Your task to perform on an android device: turn pop-ups on in chrome Image 0: 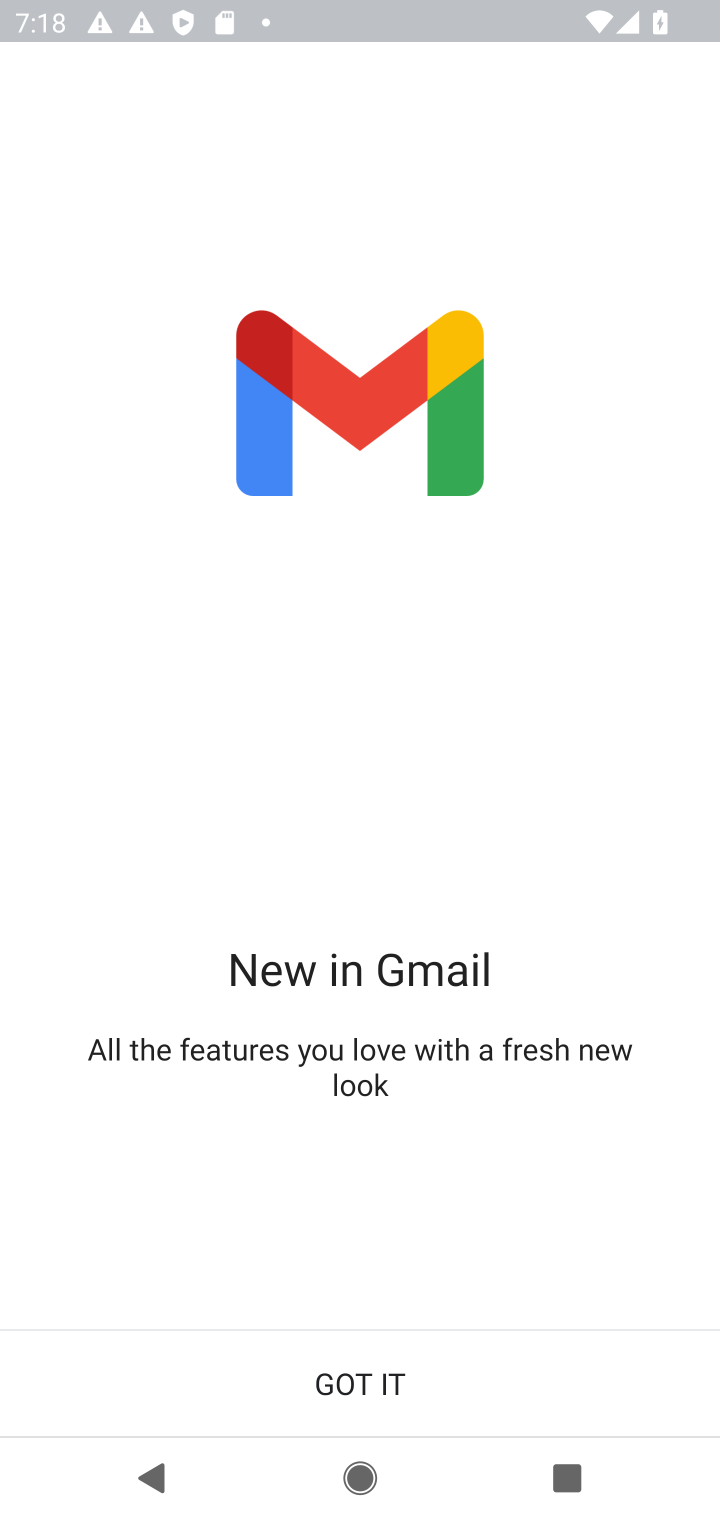
Step 0: press home button
Your task to perform on an android device: turn pop-ups on in chrome Image 1: 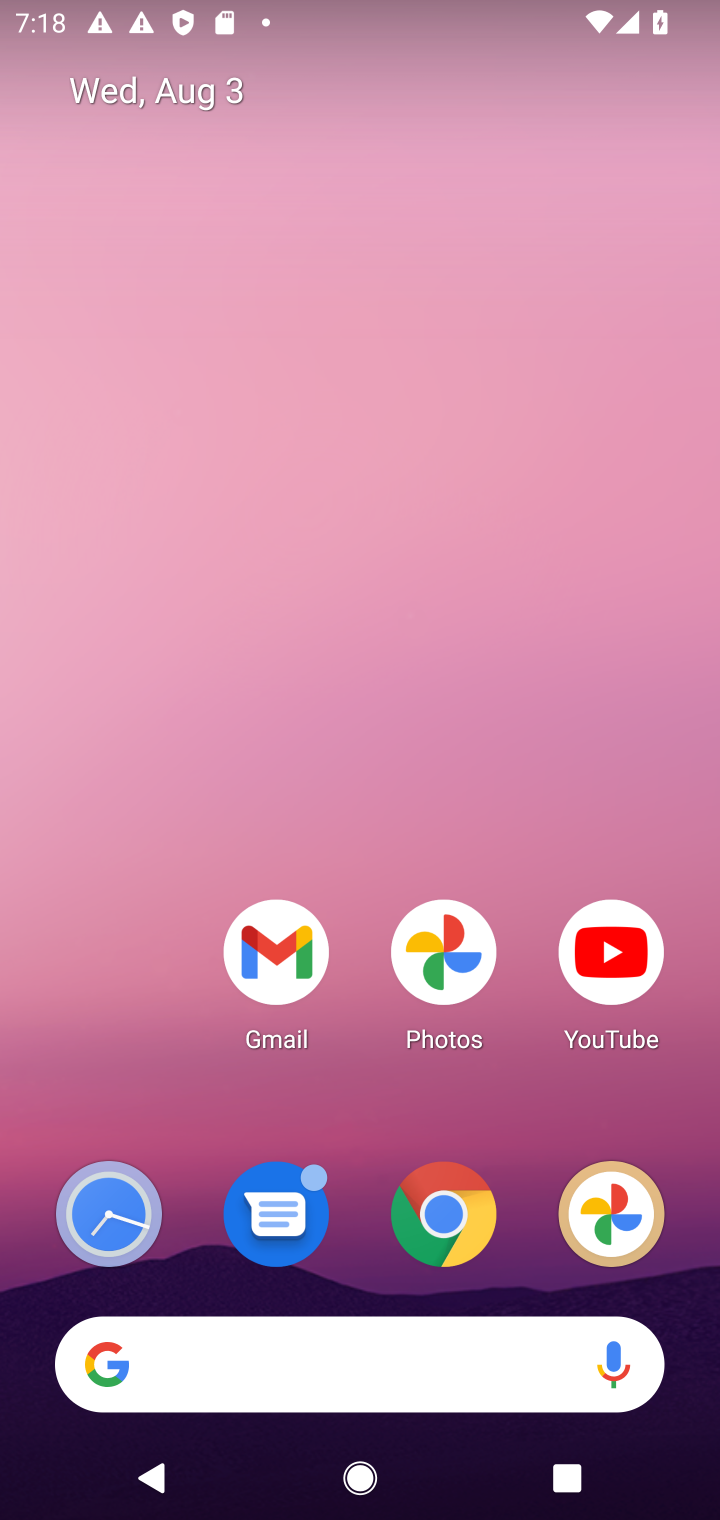
Step 1: click (436, 1203)
Your task to perform on an android device: turn pop-ups on in chrome Image 2: 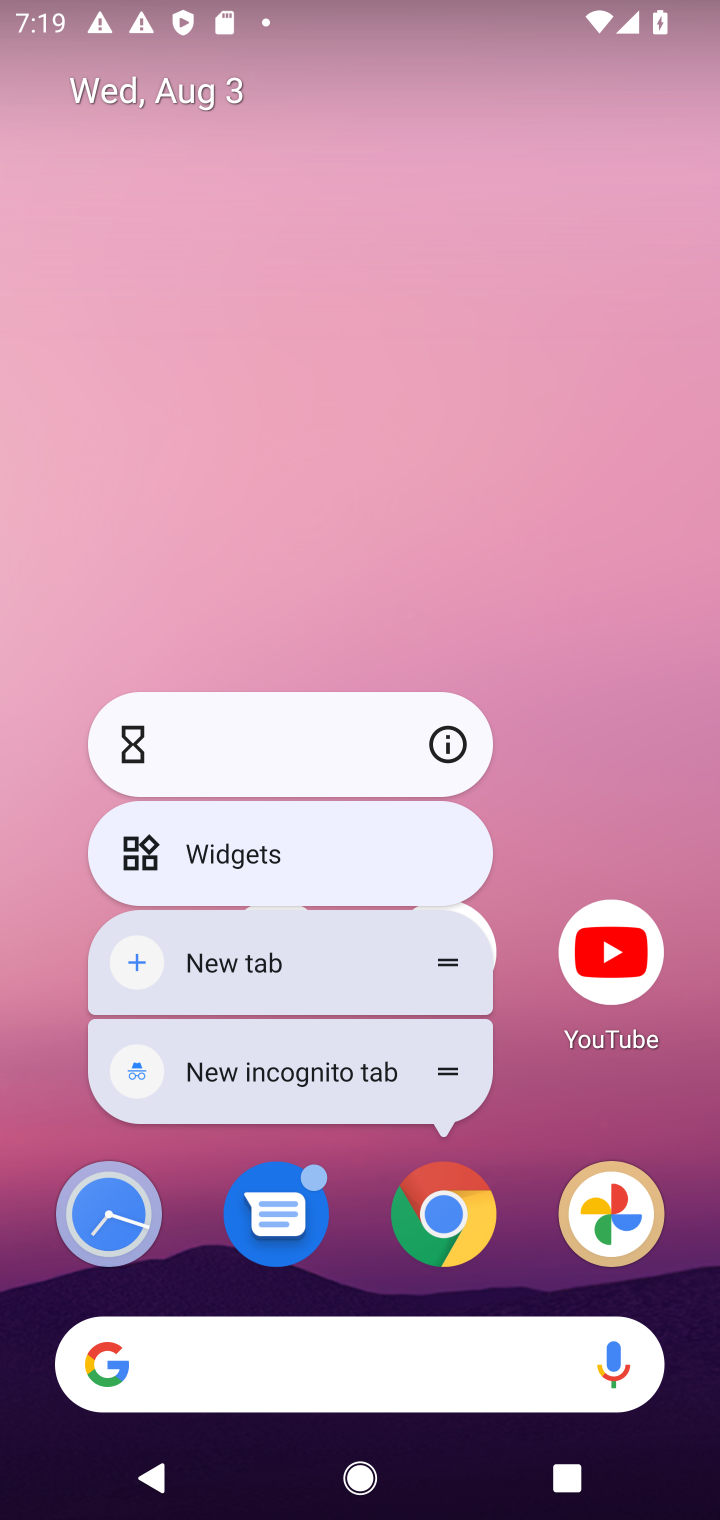
Step 2: click (436, 1203)
Your task to perform on an android device: turn pop-ups on in chrome Image 3: 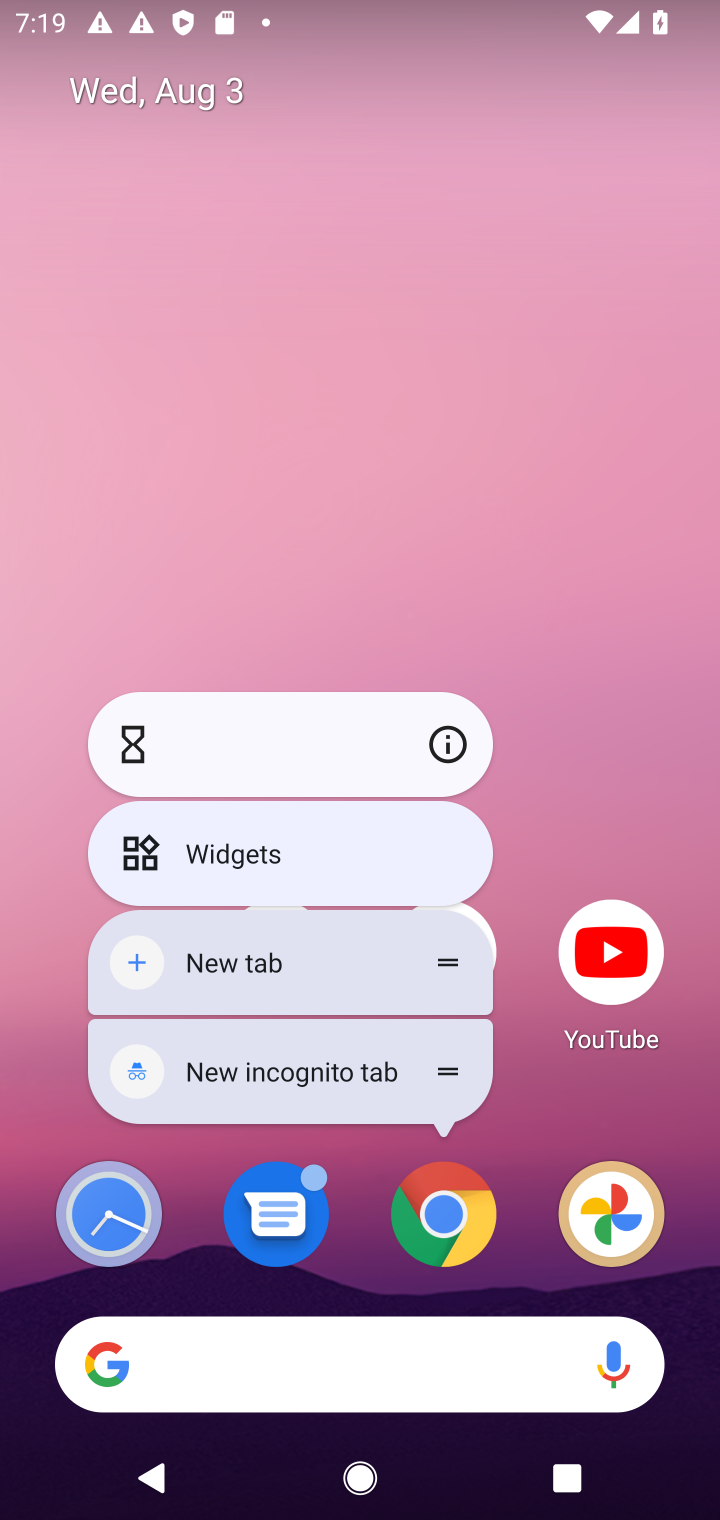
Step 3: click (443, 1216)
Your task to perform on an android device: turn pop-ups on in chrome Image 4: 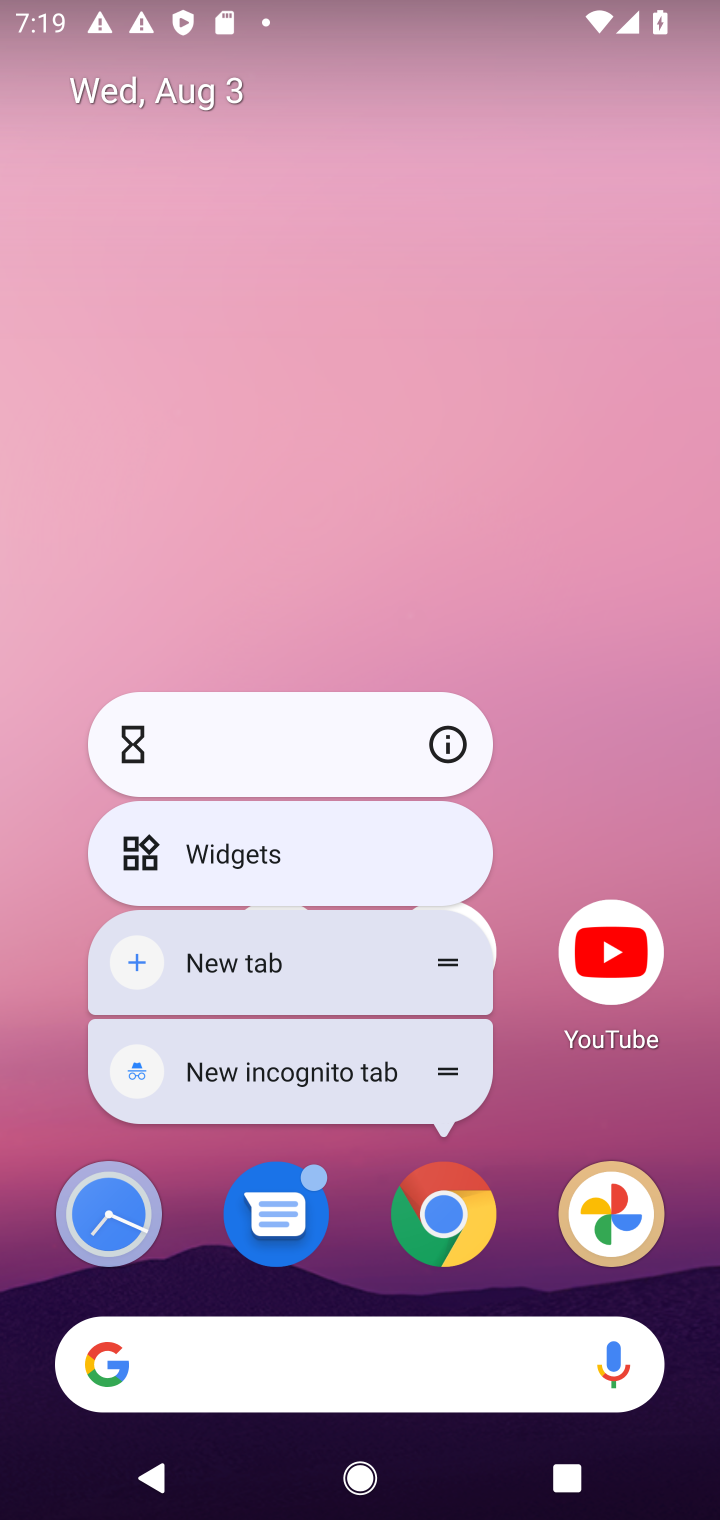
Step 4: click (444, 1236)
Your task to perform on an android device: turn pop-ups on in chrome Image 5: 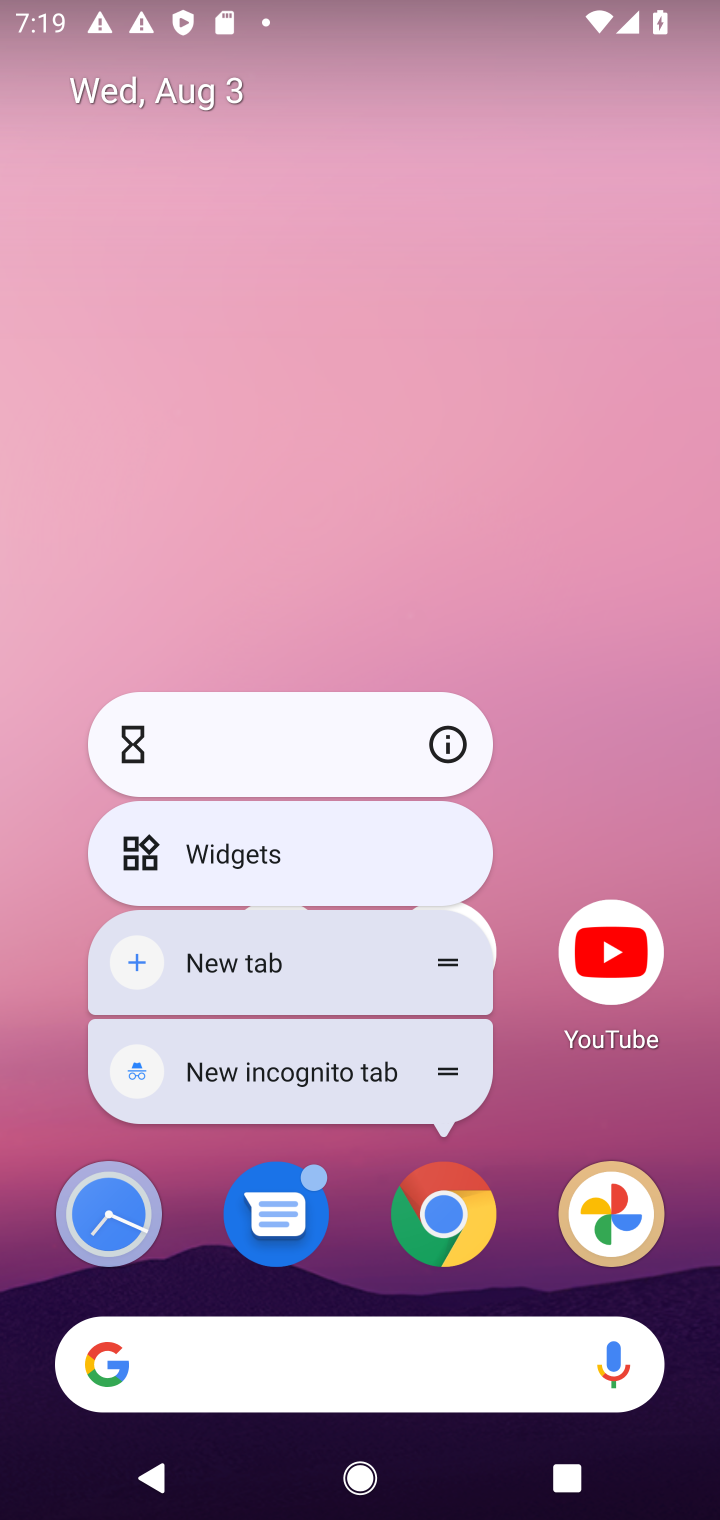
Step 5: click (448, 1239)
Your task to perform on an android device: turn pop-ups on in chrome Image 6: 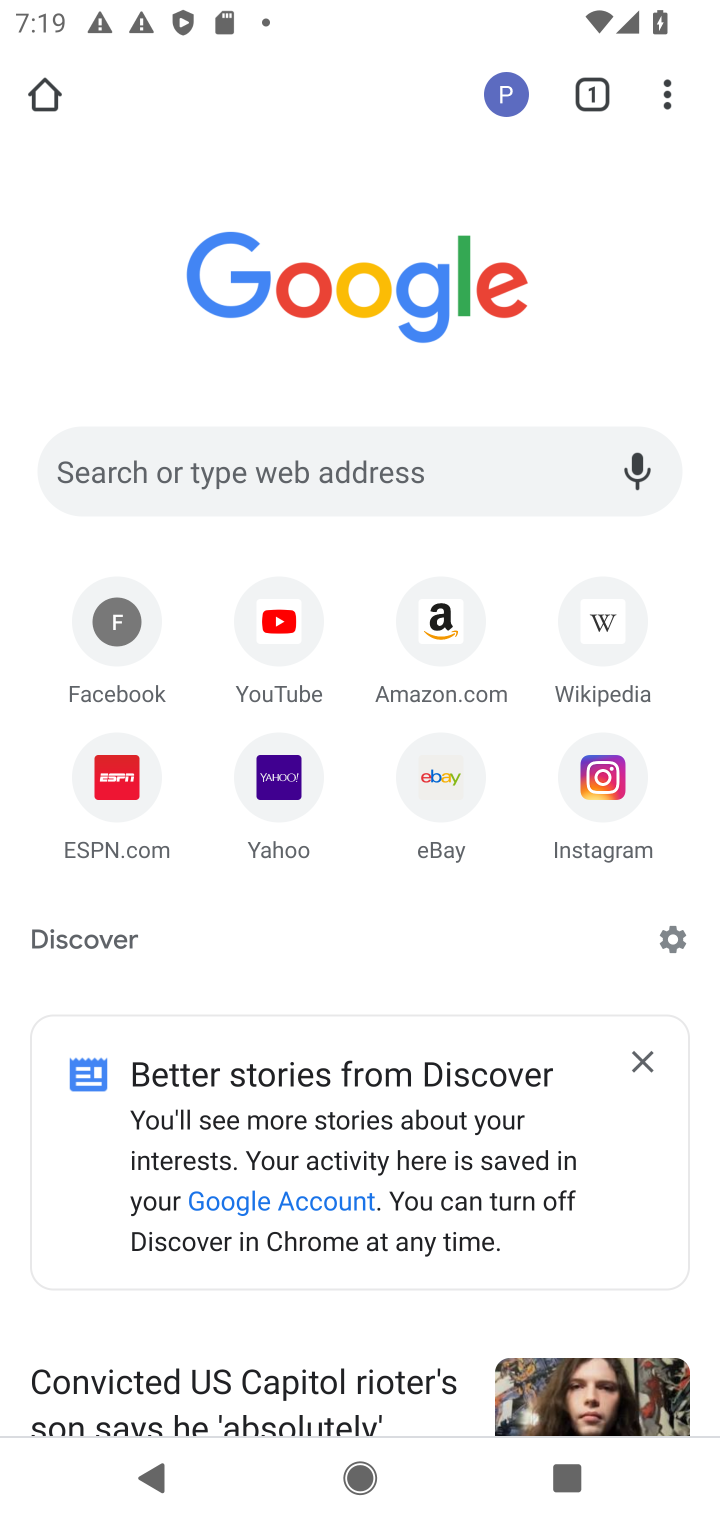
Step 6: click (665, 106)
Your task to perform on an android device: turn pop-ups on in chrome Image 7: 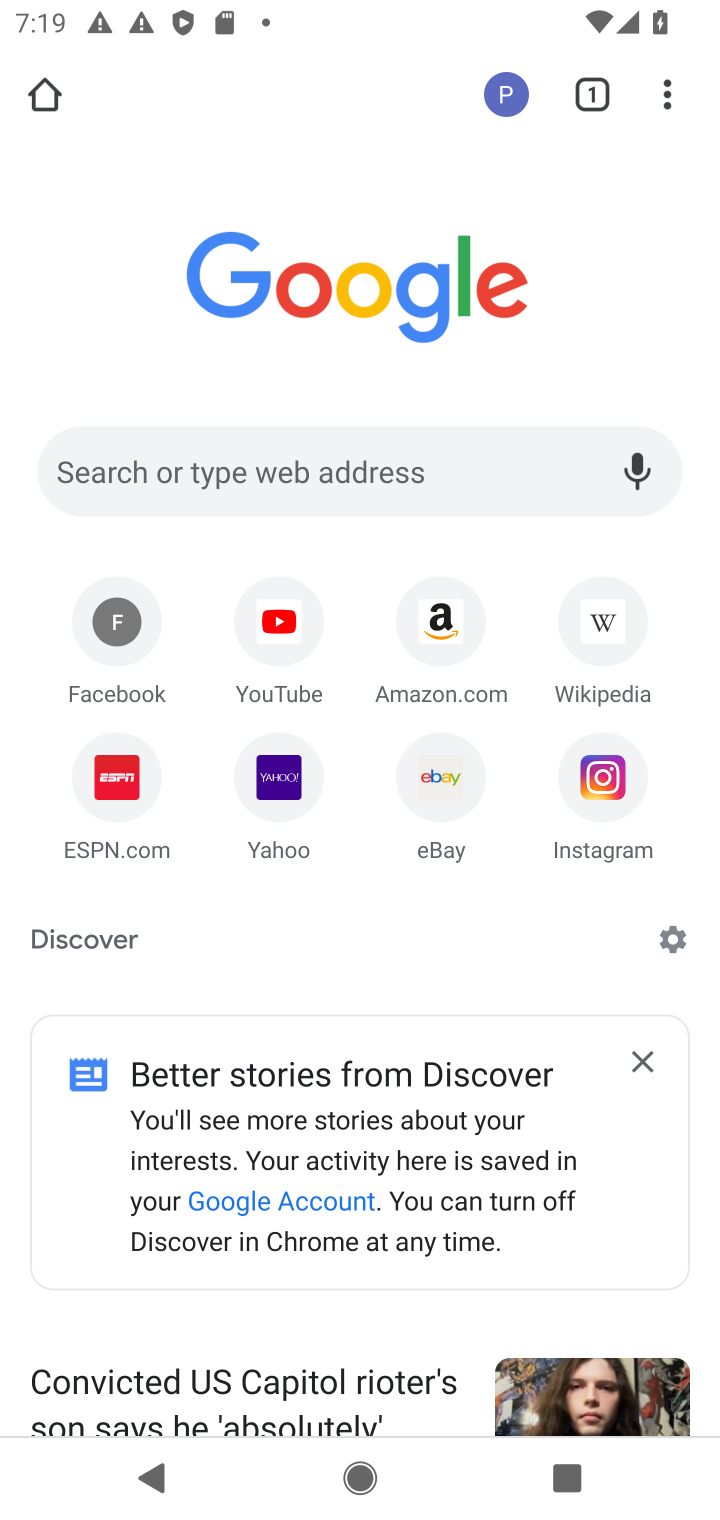
Step 7: click (663, 86)
Your task to perform on an android device: turn pop-ups on in chrome Image 8: 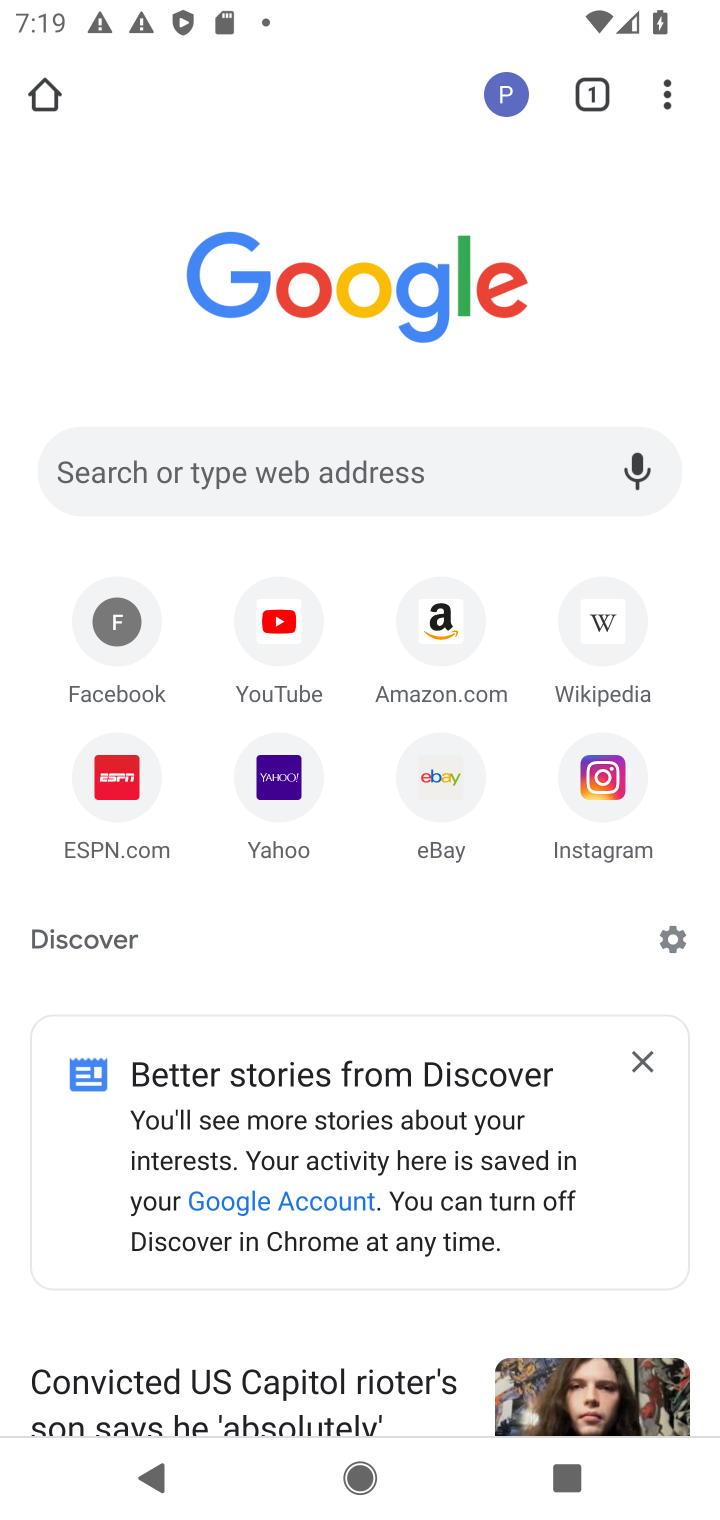
Step 8: click (651, 86)
Your task to perform on an android device: turn pop-ups on in chrome Image 9: 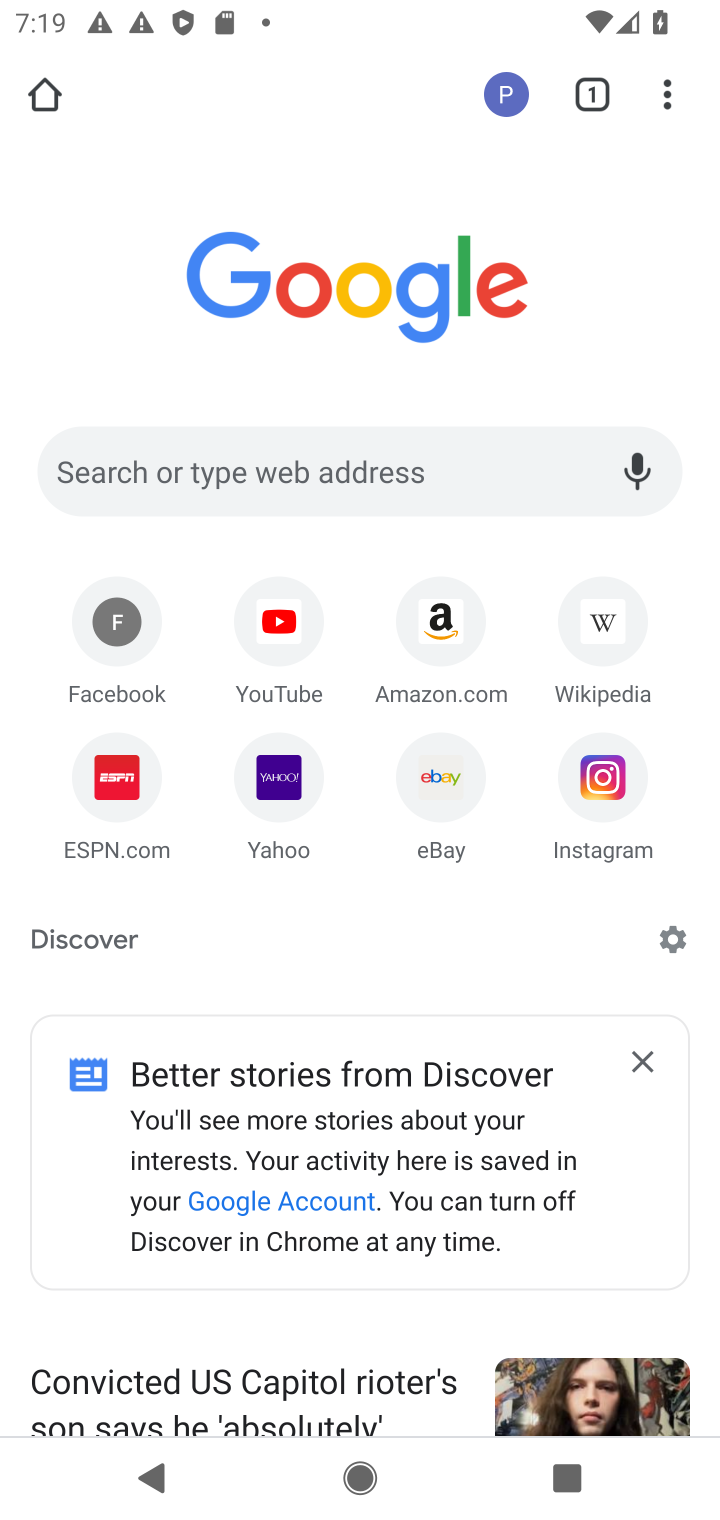
Step 9: click (670, 108)
Your task to perform on an android device: turn pop-ups on in chrome Image 10: 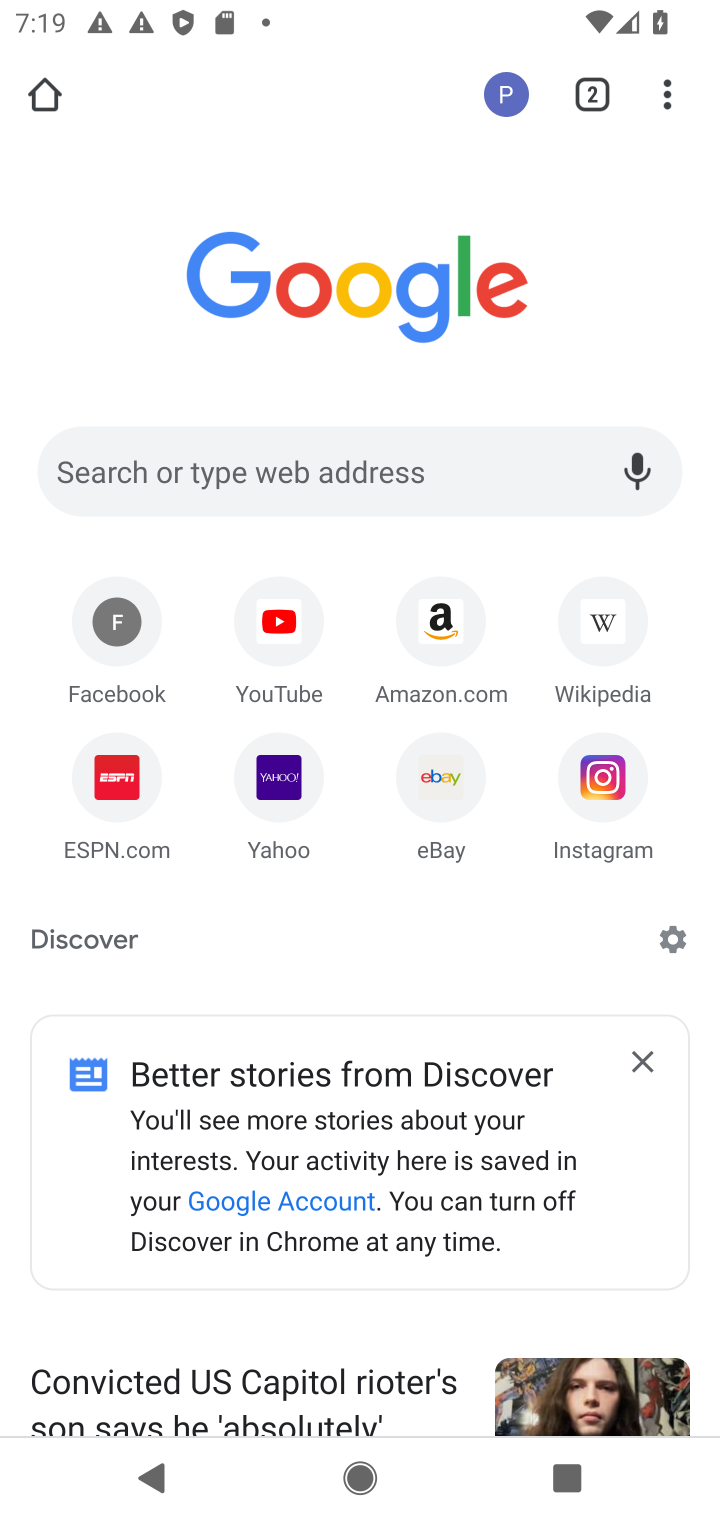
Step 10: click (666, 92)
Your task to perform on an android device: turn pop-ups on in chrome Image 11: 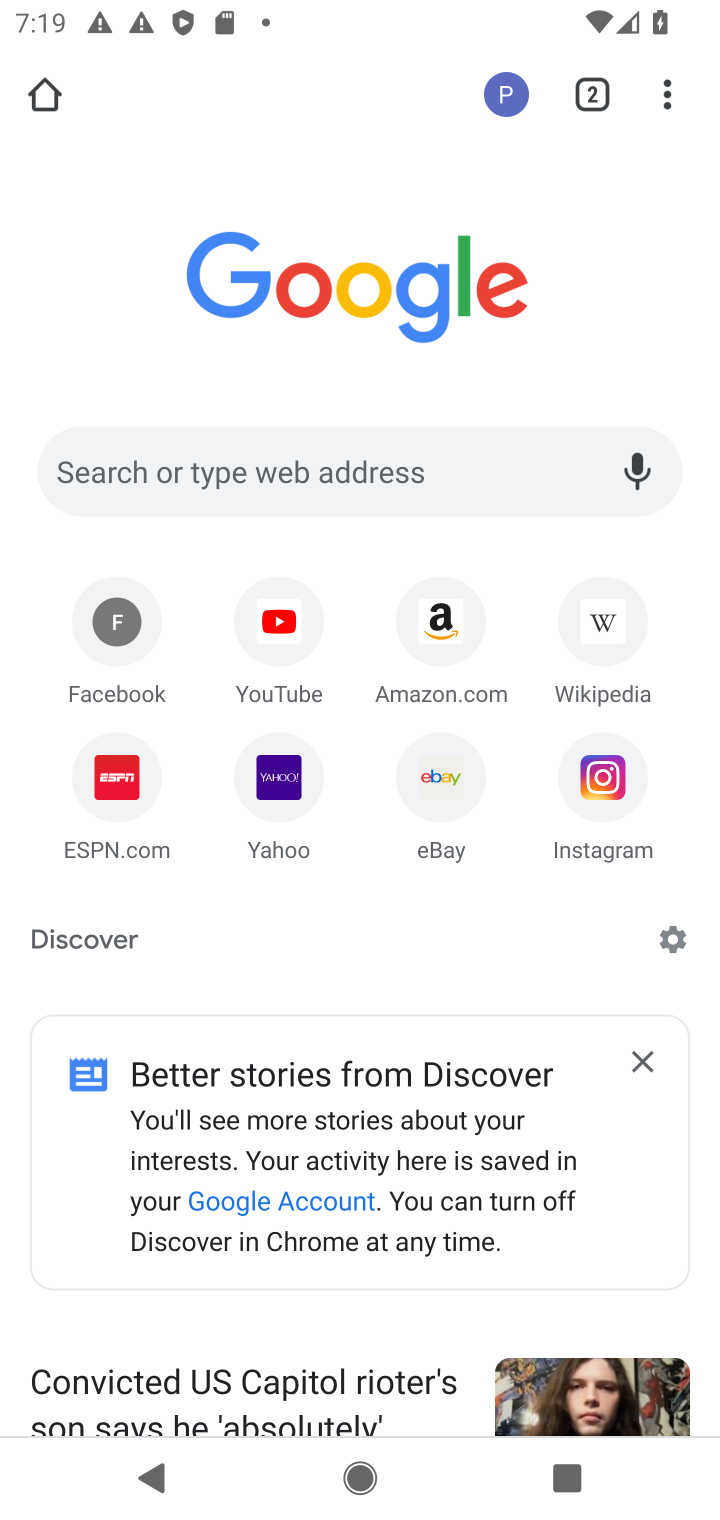
Step 11: click (666, 92)
Your task to perform on an android device: turn pop-ups on in chrome Image 12: 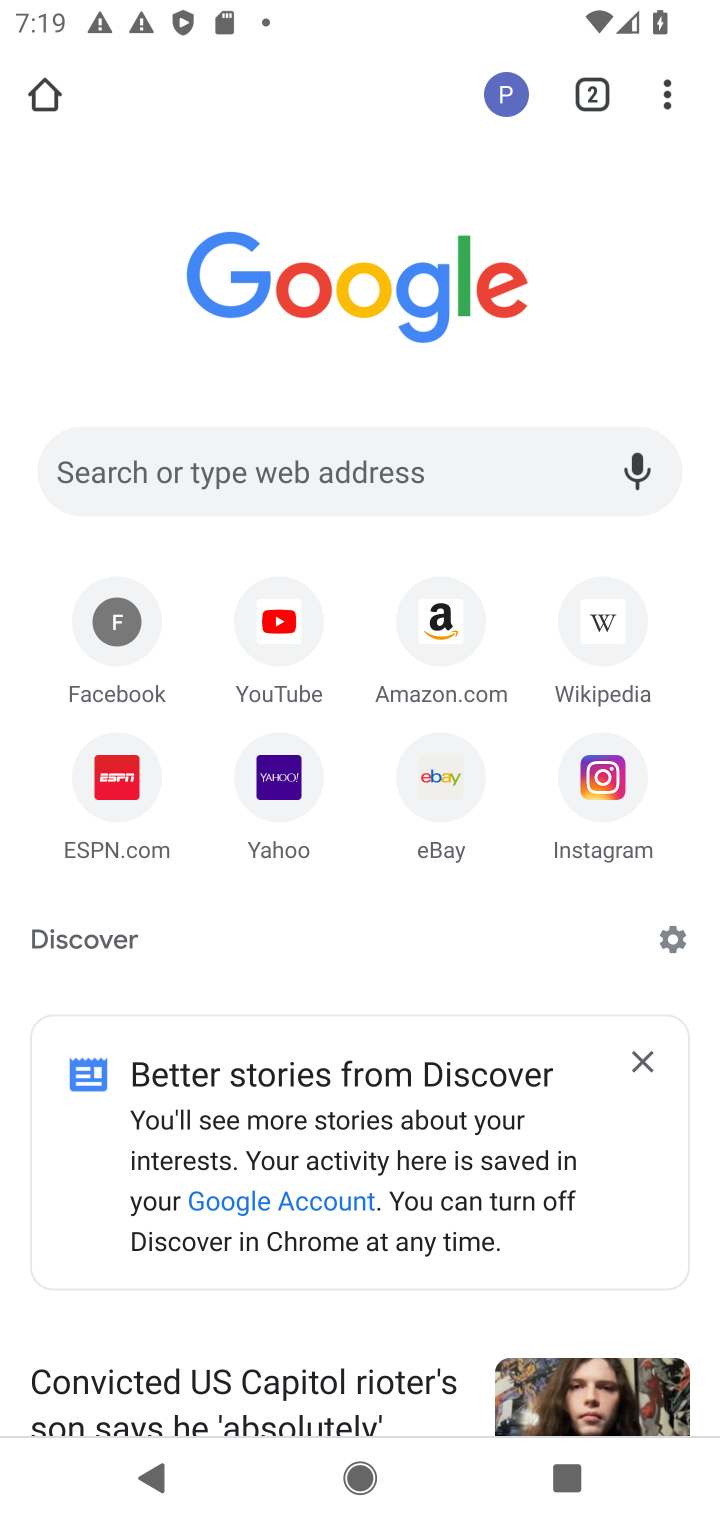
Step 12: click (682, 94)
Your task to perform on an android device: turn pop-ups on in chrome Image 13: 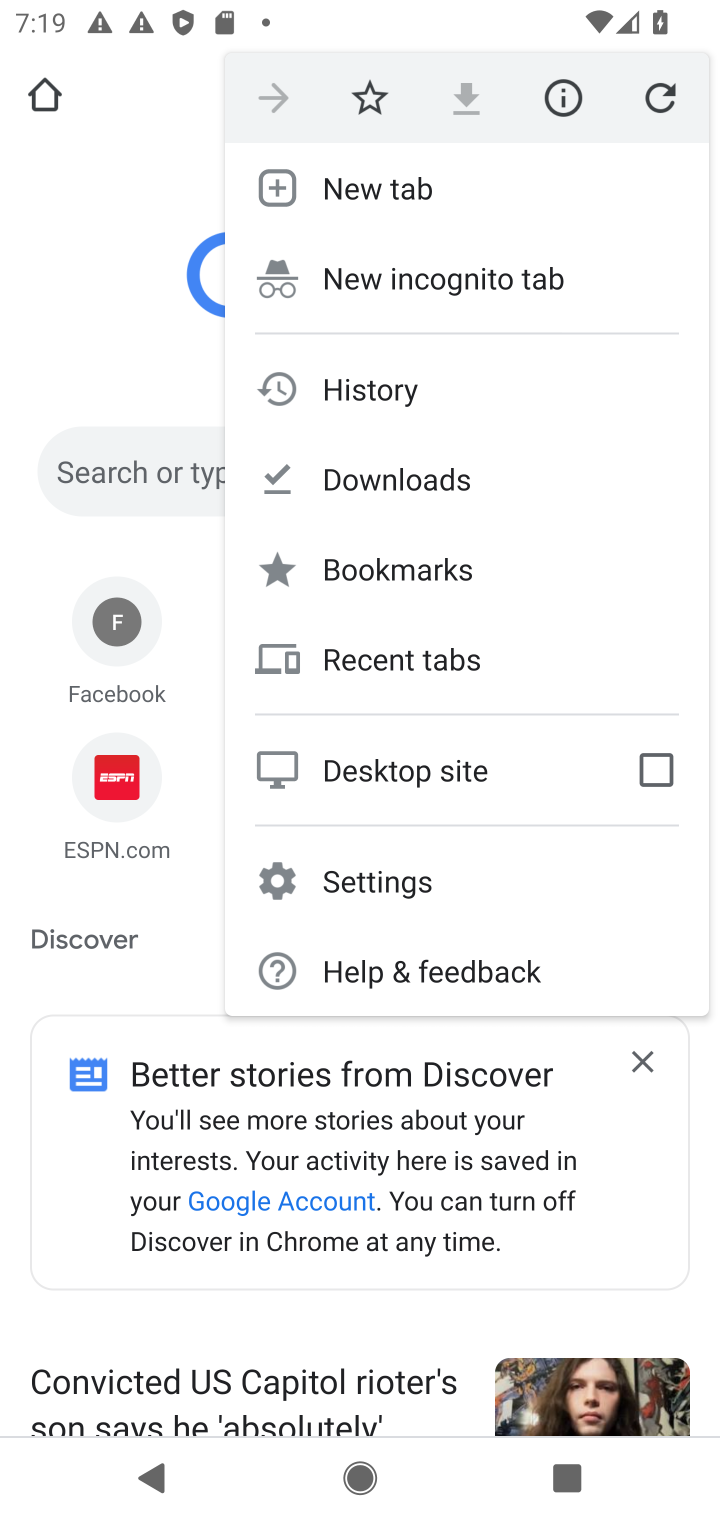
Step 13: click (380, 880)
Your task to perform on an android device: turn pop-ups on in chrome Image 14: 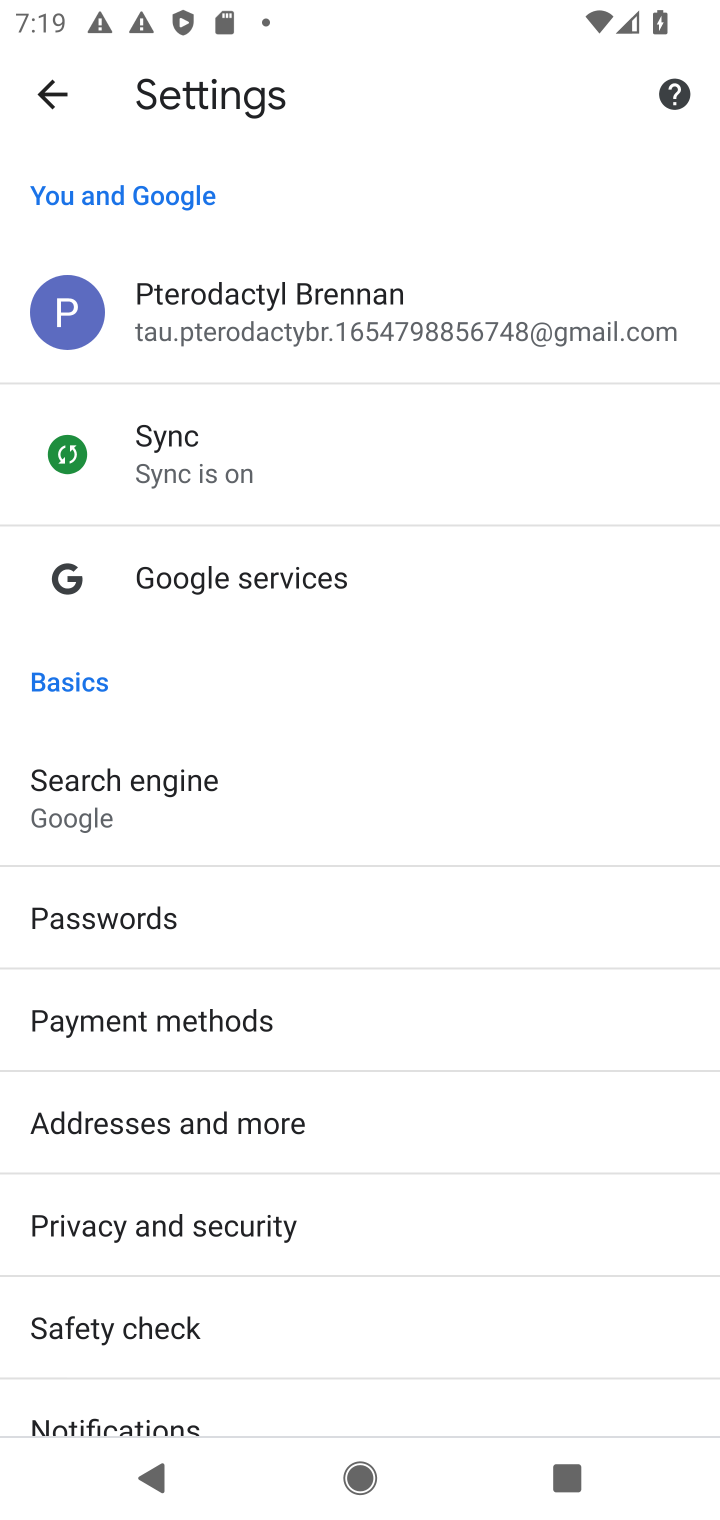
Step 14: drag from (104, 1355) to (174, 749)
Your task to perform on an android device: turn pop-ups on in chrome Image 15: 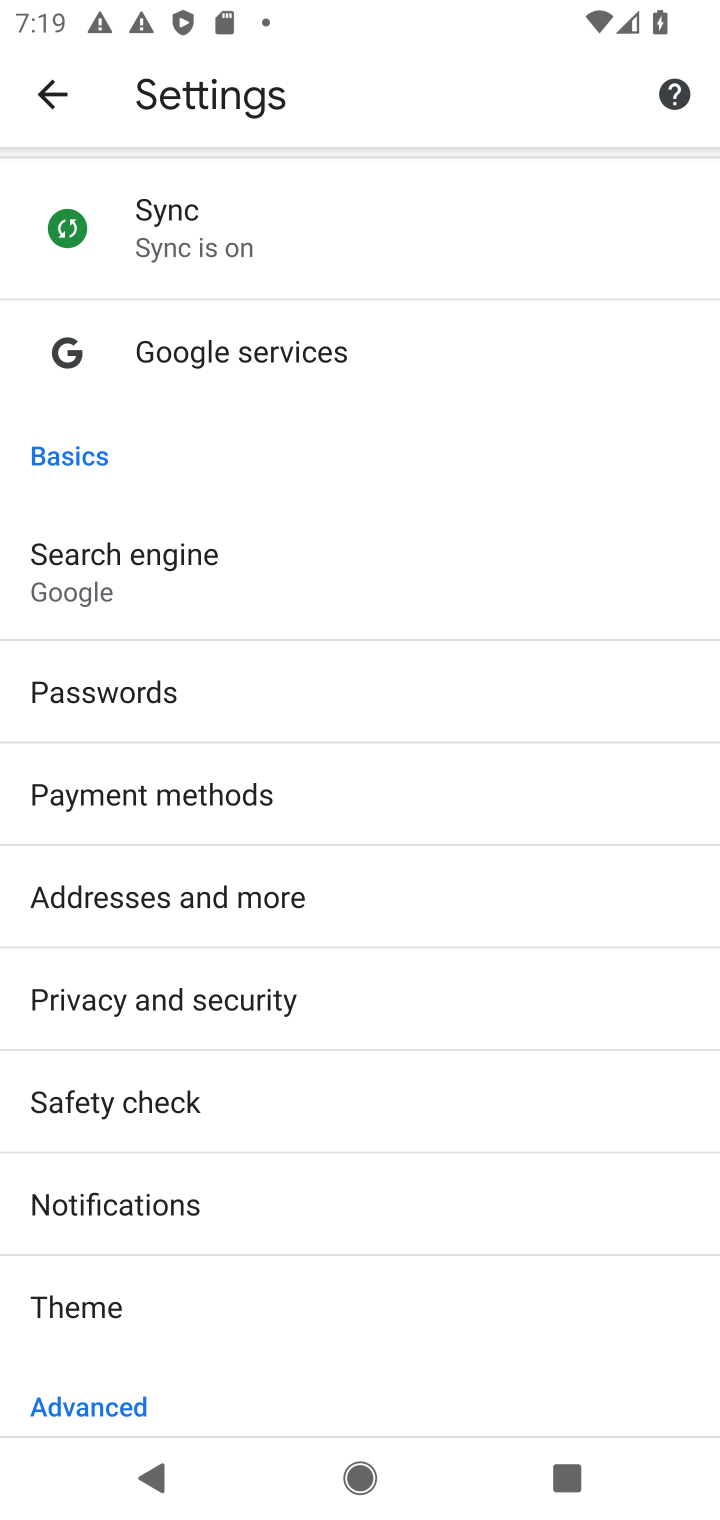
Step 15: drag from (120, 1343) to (141, 496)
Your task to perform on an android device: turn pop-ups on in chrome Image 16: 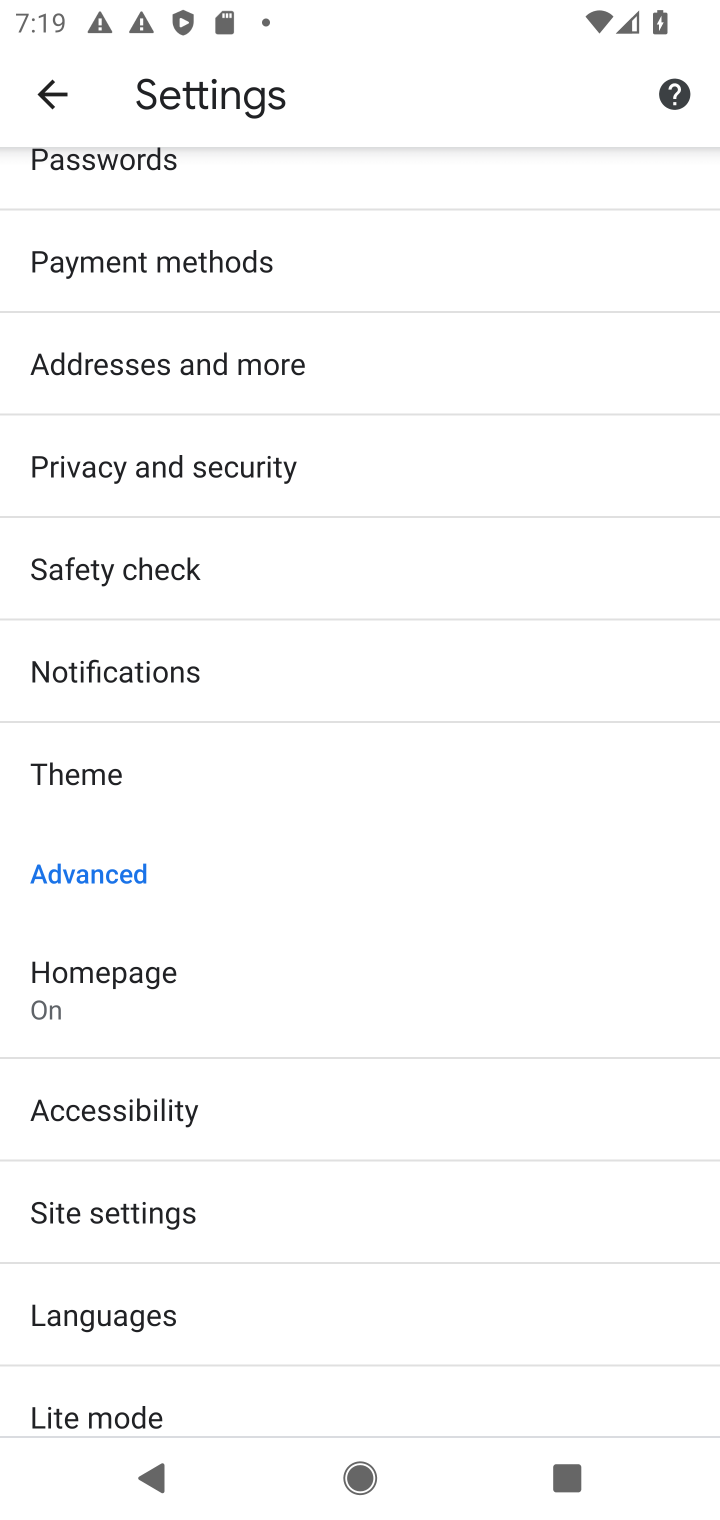
Step 16: click (102, 1213)
Your task to perform on an android device: turn pop-ups on in chrome Image 17: 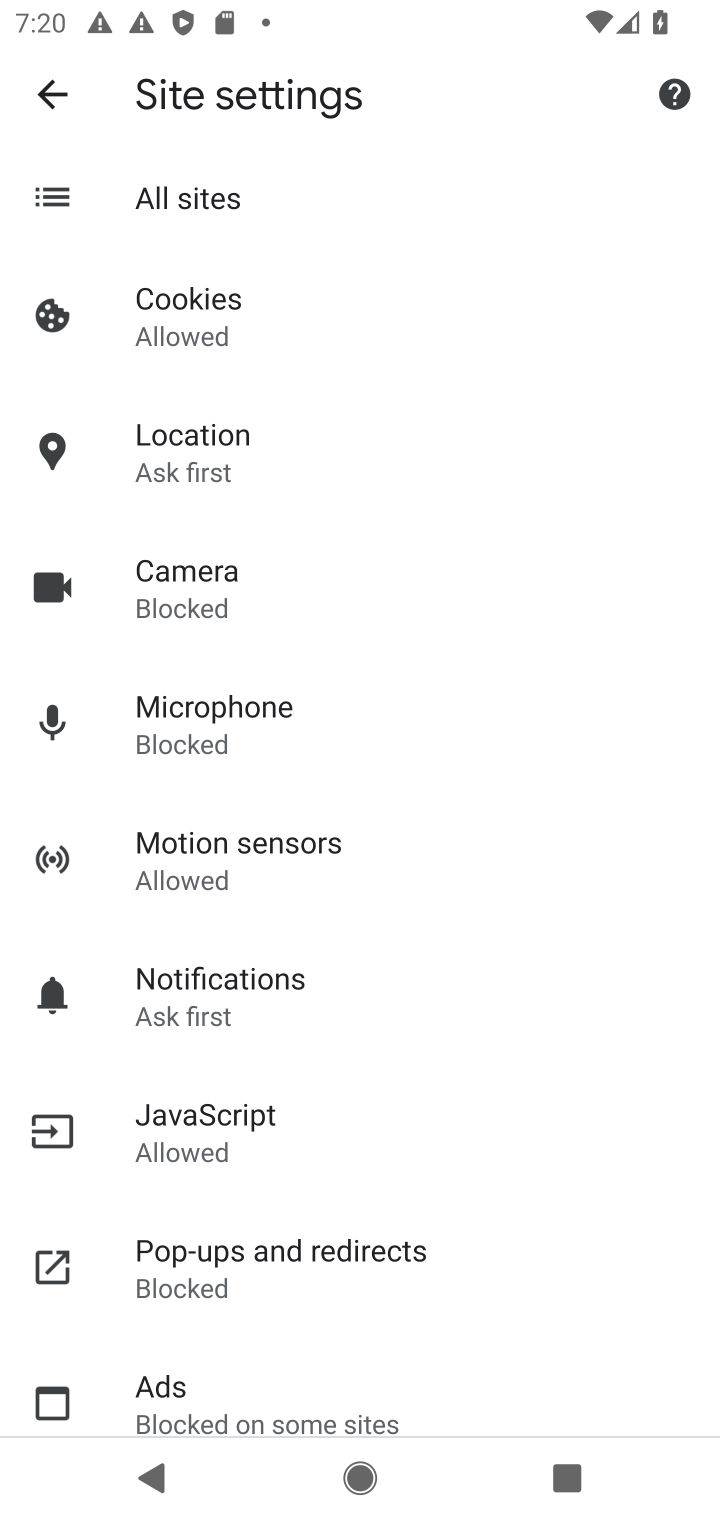
Step 17: drag from (270, 1364) to (270, 634)
Your task to perform on an android device: turn pop-ups on in chrome Image 18: 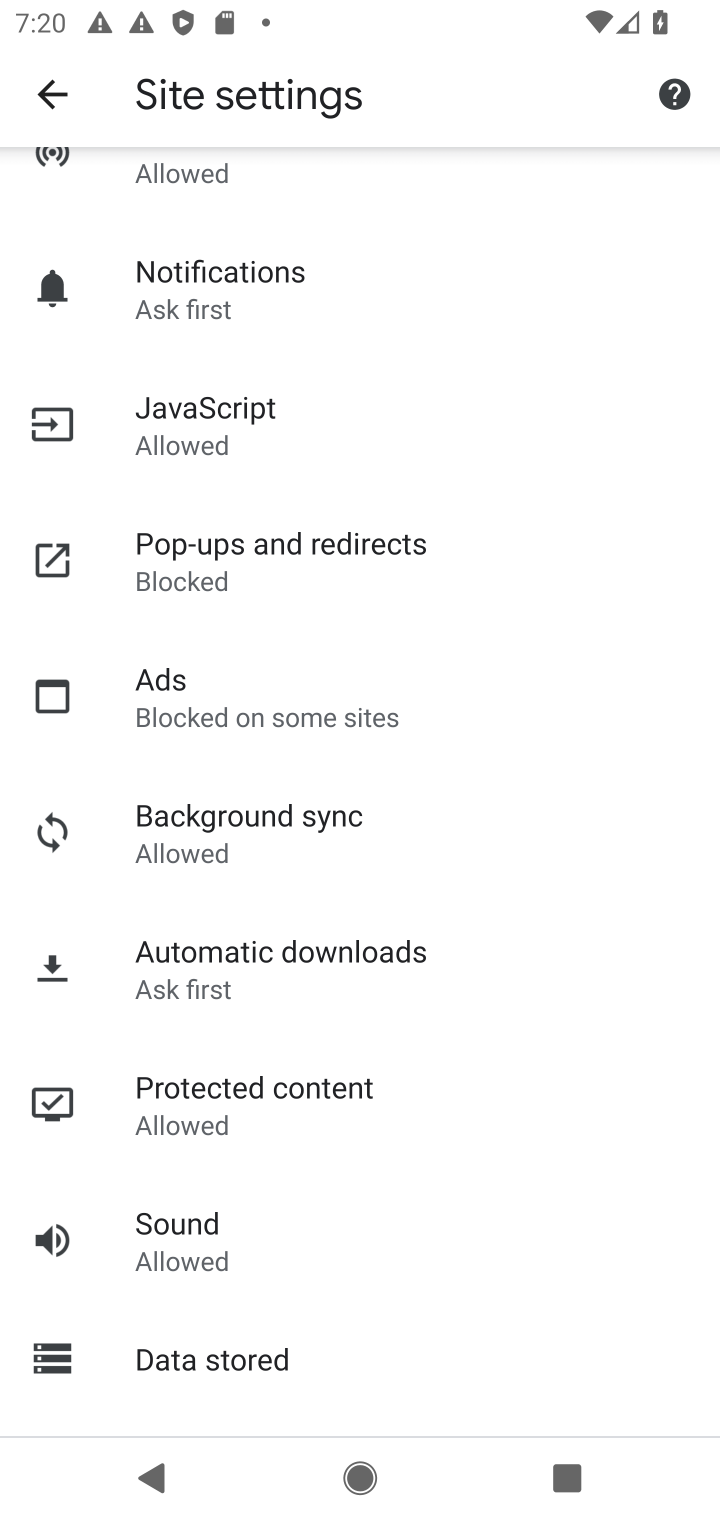
Step 18: click (243, 543)
Your task to perform on an android device: turn pop-ups on in chrome Image 19: 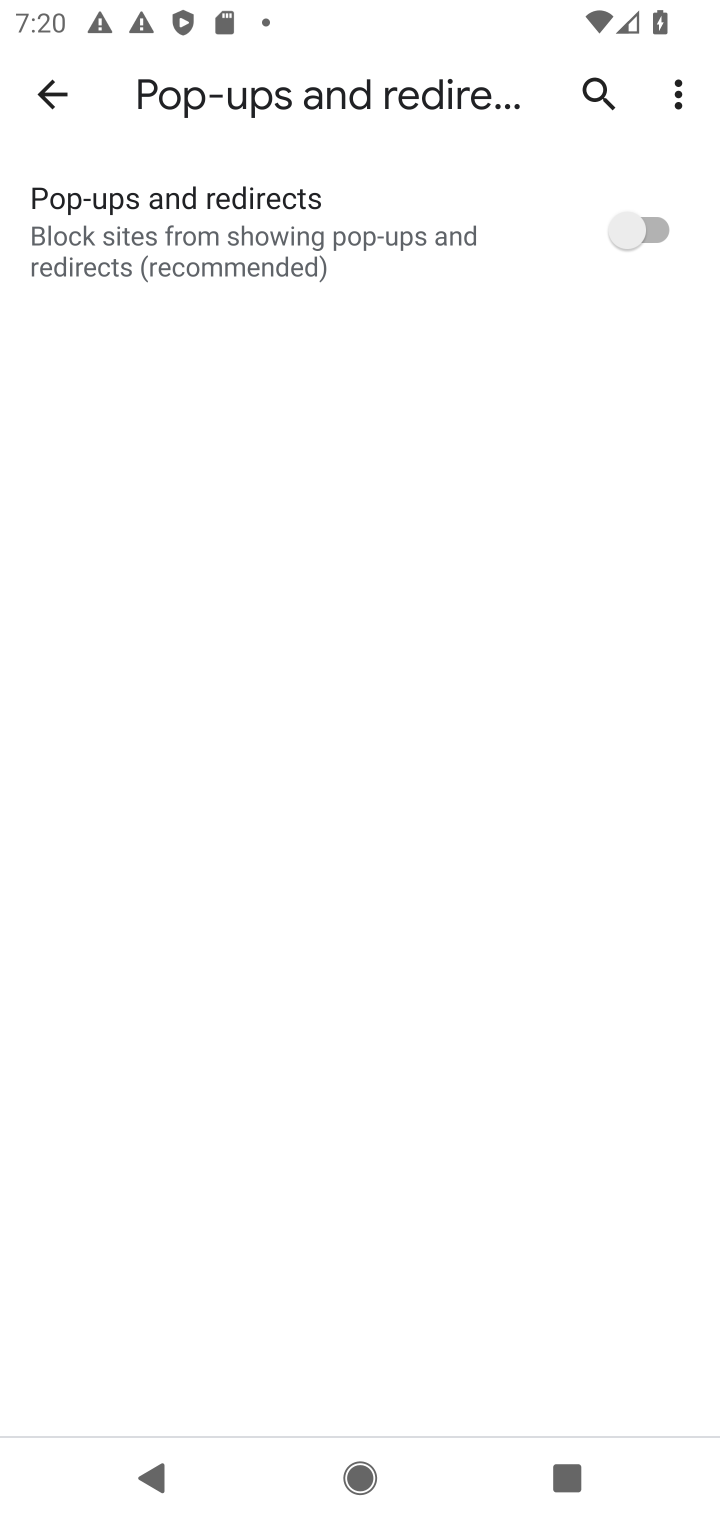
Step 19: click (661, 230)
Your task to perform on an android device: turn pop-ups on in chrome Image 20: 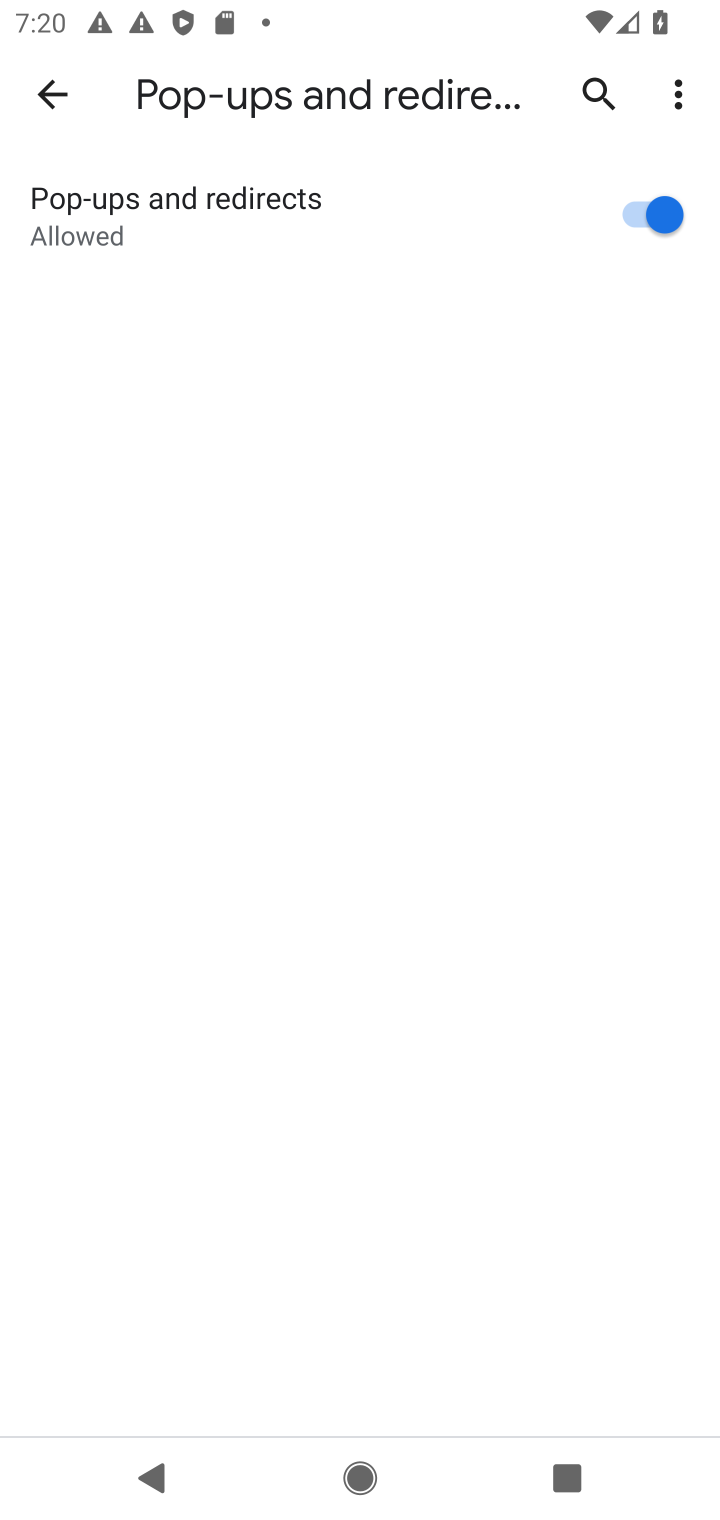
Step 20: task complete